Your task to perform on an android device: Open notification settings Image 0: 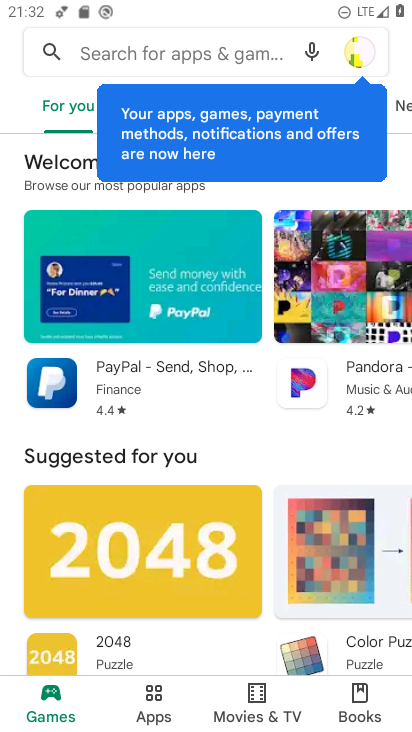
Step 0: drag from (263, 6) to (253, 604)
Your task to perform on an android device: Open notification settings Image 1: 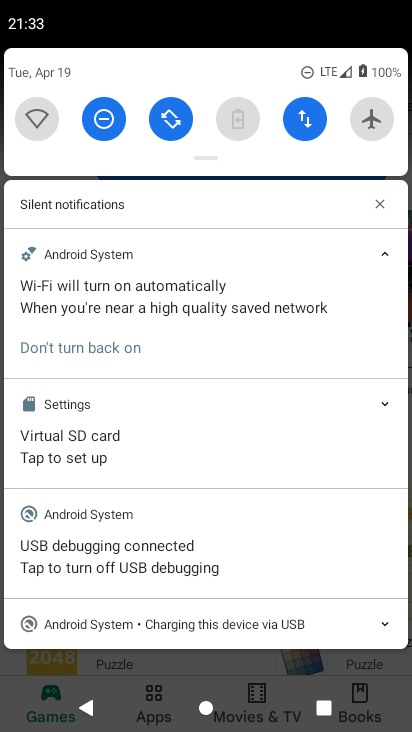
Step 1: drag from (240, 57) to (119, 722)
Your task to perform on an android device: Open notification settings Image 2: 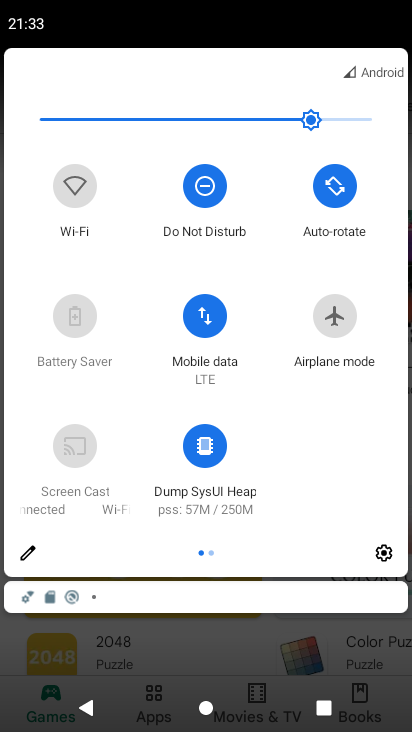
Step 2: click (386, 549)
Your task to perform on an android device: Open notification settings Image 3: 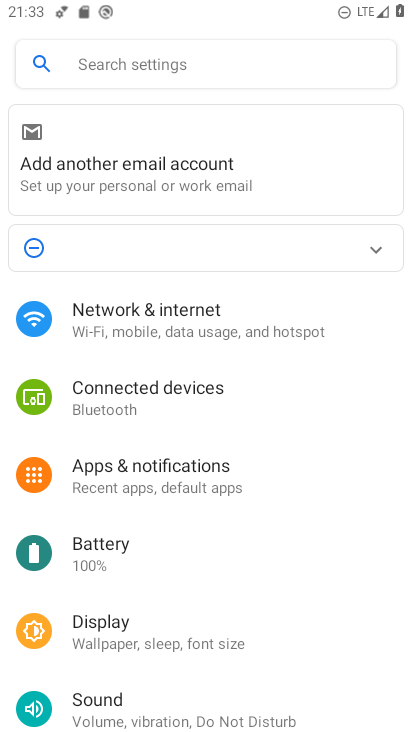
Step 3: click (187, 496)
Your task to perform on an android device: Open notification settings Image 4: 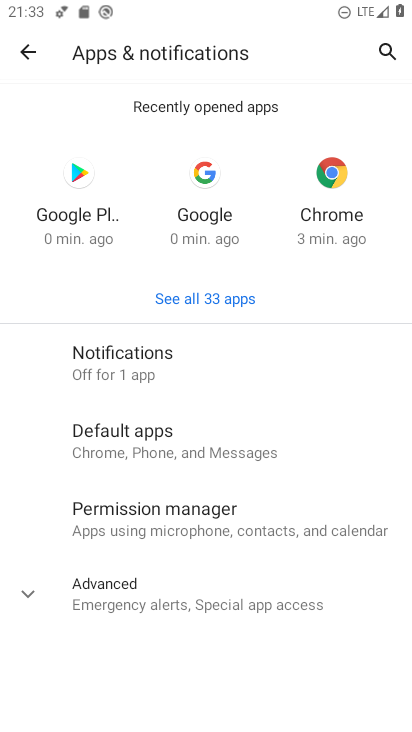
Step 4: task complete